Your task to perform on an android device: Turn on the flashlight Image 0: 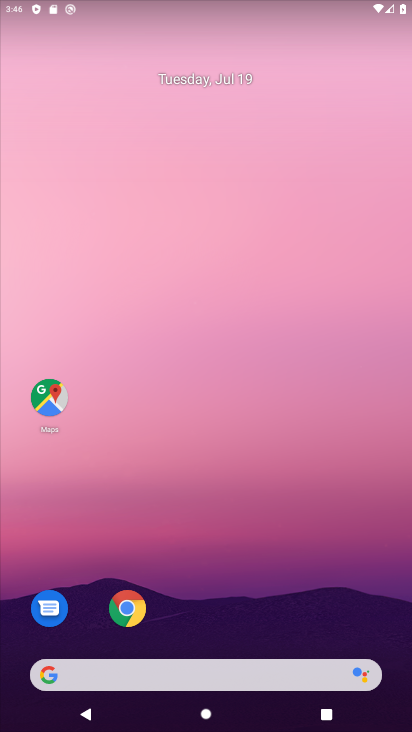
Step 0: drag from (224, 522) to (257, 141)
Your task to perform on an android device: Turn on the flashlight Image 1: 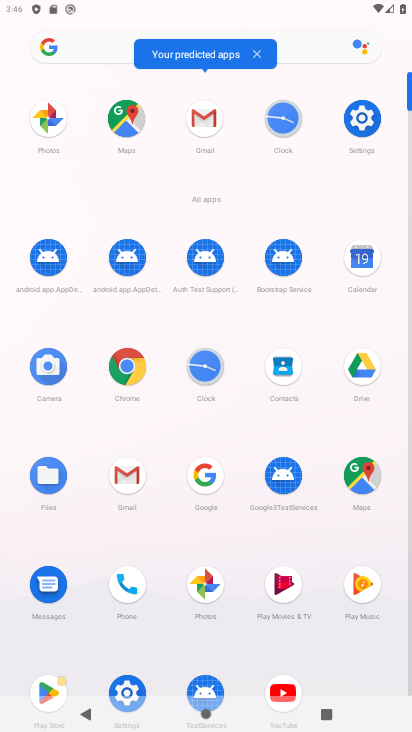
Step 1: click (373, 109)
Your task to perform on an android device: Turn on the flashlight Image 2: 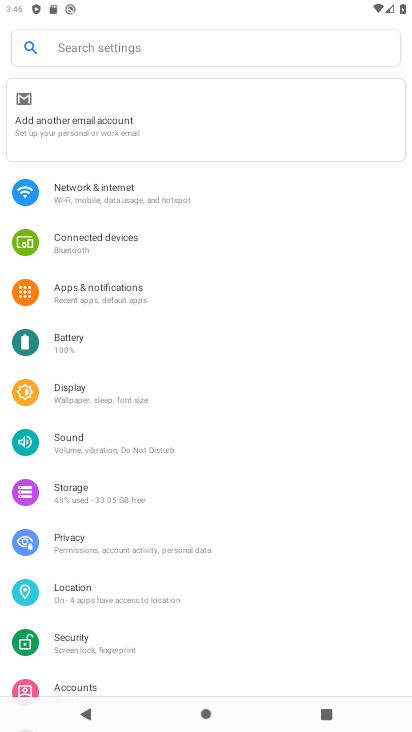
Step 2: click (82, 401)
Your task to perform on an android device: Turn on the flashlight Image 3: 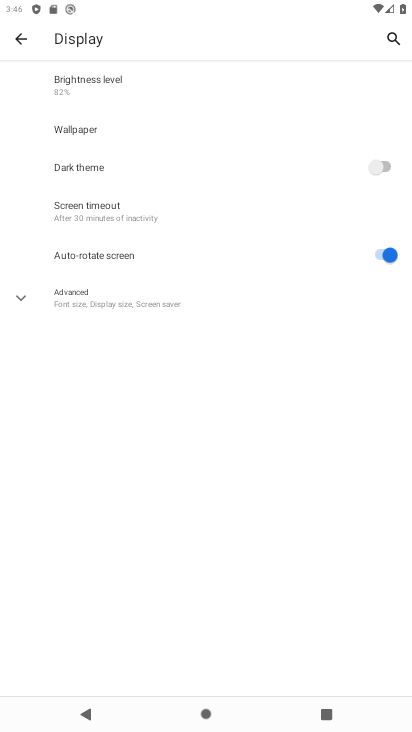
Step 3: task complete